Your task to perform on an android device: Search for seafood restaurants on Google Maps Image 0: 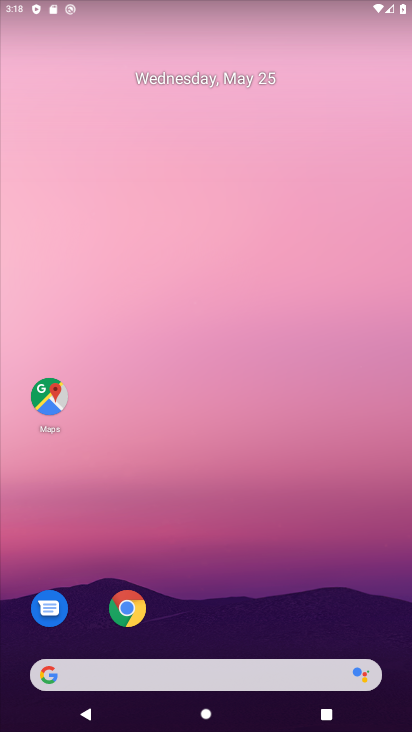
Step 0: click (55, 402)
Your task to perform on an android device: Search for seafood restaurants on Google Maps Image 1: 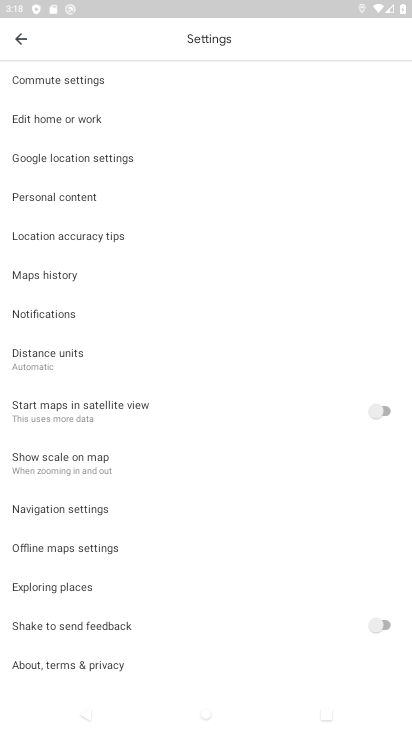
Step 1: click (20, 43)
Your task to perform on an android device: Search for seafood restaurants on Google Maps Image 2: 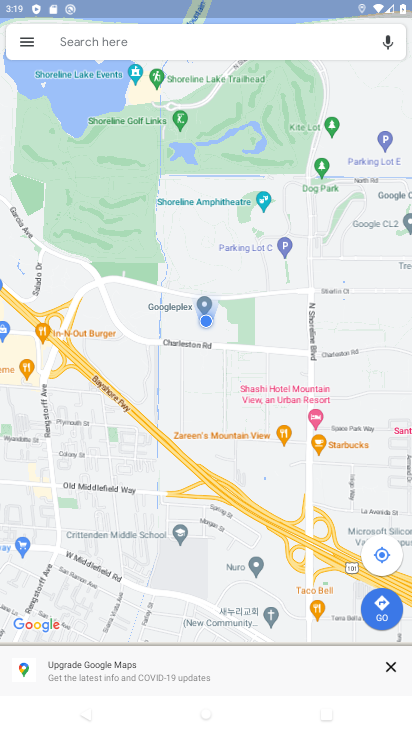
Step 2: click (101, 45)
Your task to perform on an android device: Search for seafood restaurants on Google Maps Image 3: 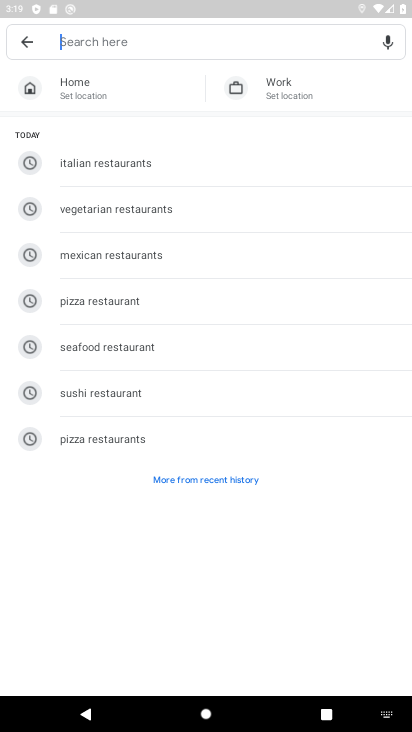
Step 3: click (87, 351)
Your task to perform on an android device: Search for seafood restaurants on Google Maps Image 4: 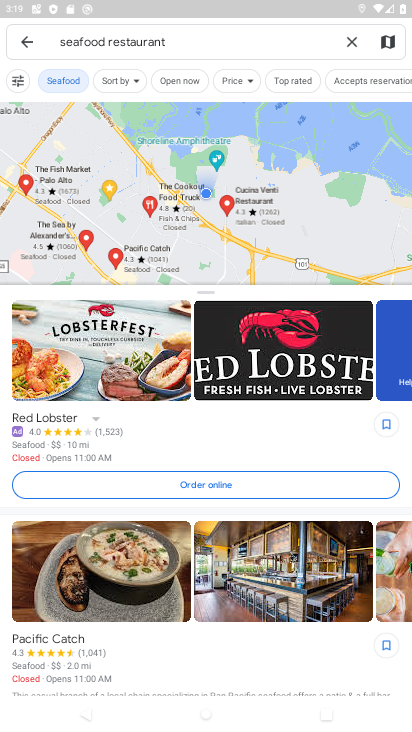
Step 4: task complete